Your task to perform on an android device: Is it going to rain this weekend? Image 0: 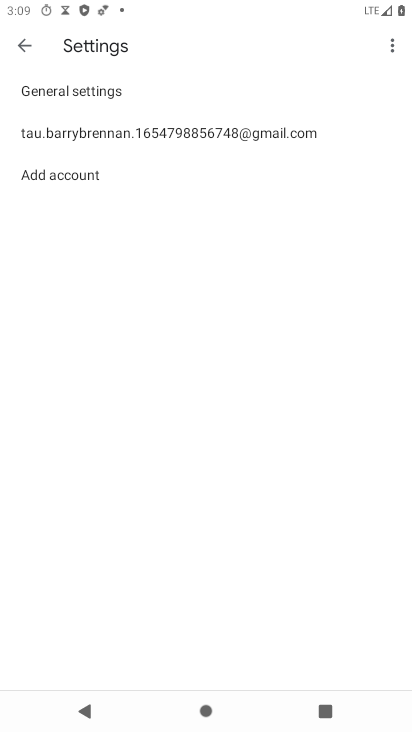
Step 0: press home button
Your task to perform on an android device: Is it going to rain this weekend? Image 1: 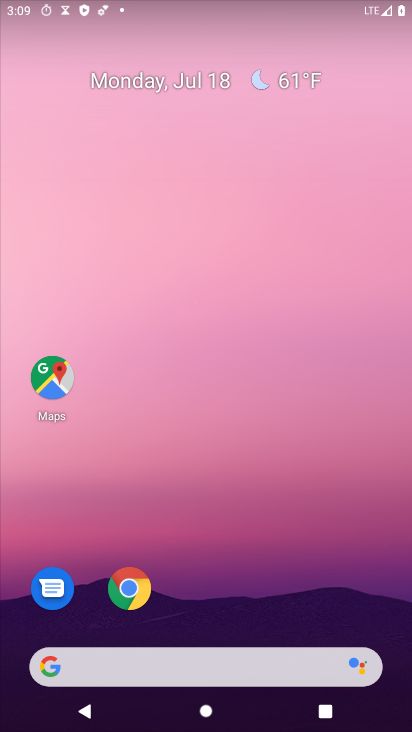
Step 1: drag from (238, 567) to (241, 0)
Your task to perform on an android device: Is it going to rain this weekend? Image 2: 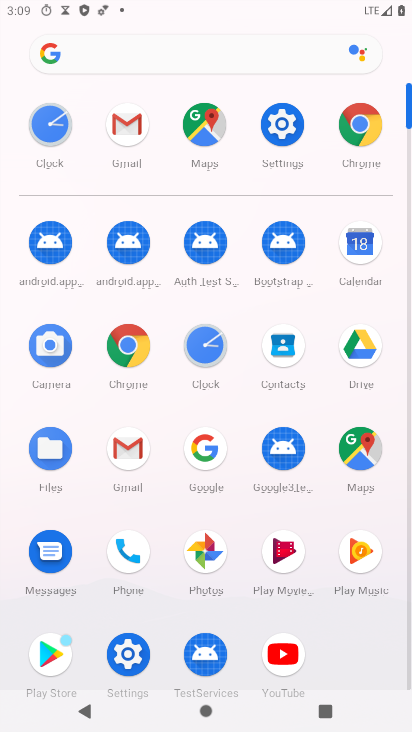
Step 2: click (209, 462)
Your task to perform on an android device: Is it going to rain this weekend? Image 3: 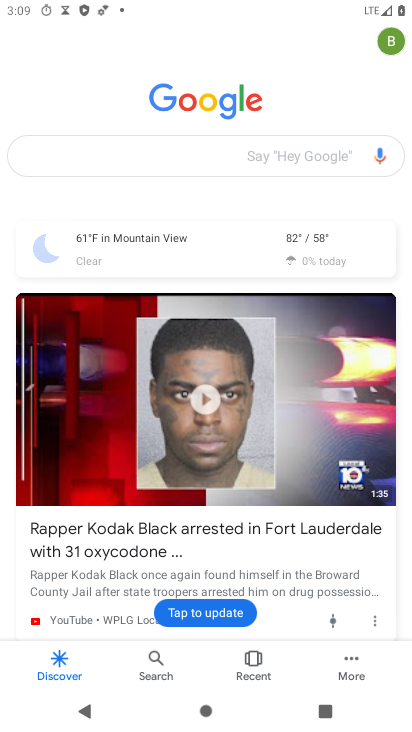
Step 3: click (145, 256)
Your task to perform on an android device: Is it going to rain this weekend? Image 4: 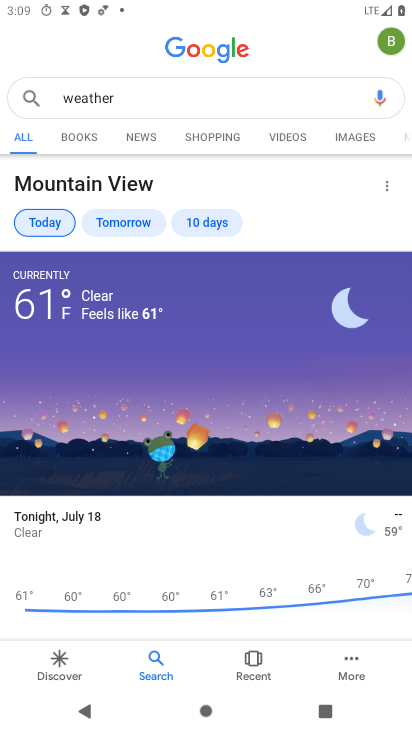
Step 4: click (207, 213)
Your task to perform on an android device: Is it going to rain this weekend? Image 5: 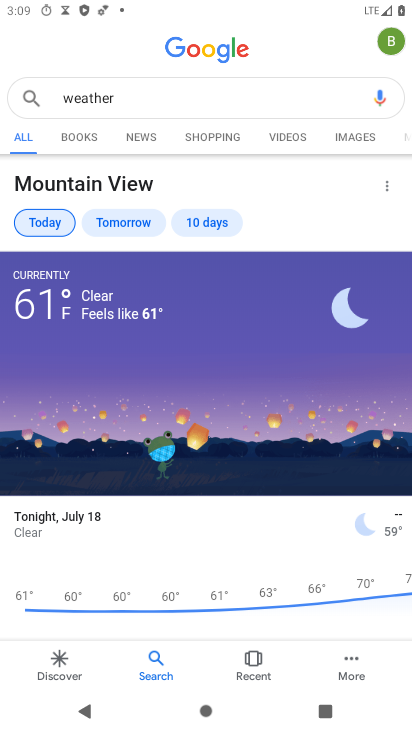
Step 5: click (207, 218)
Your task to perform on an android device: Is it going to rain this weekend? Image 6: 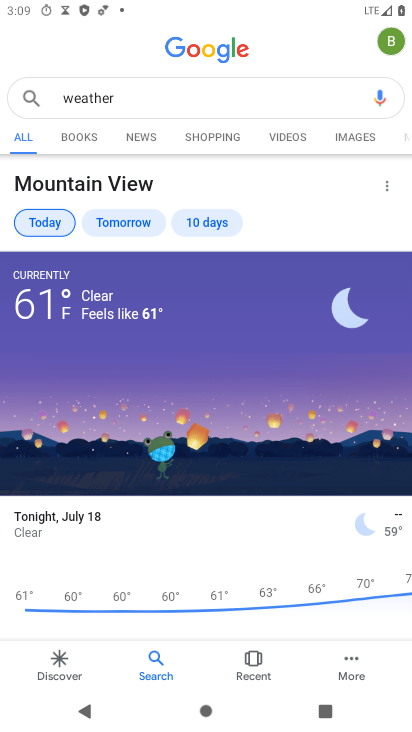
Step 6: click (207, 218)
Your task to perform on an android device: Is it going to rain this weekend? Image 7: 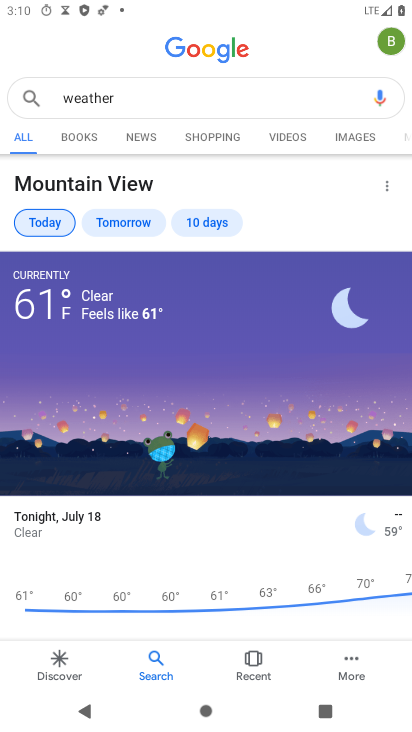
Step 7: click (207, 218)
Your task to perform on an android device: Is it going to rain this weekend? Image 8: 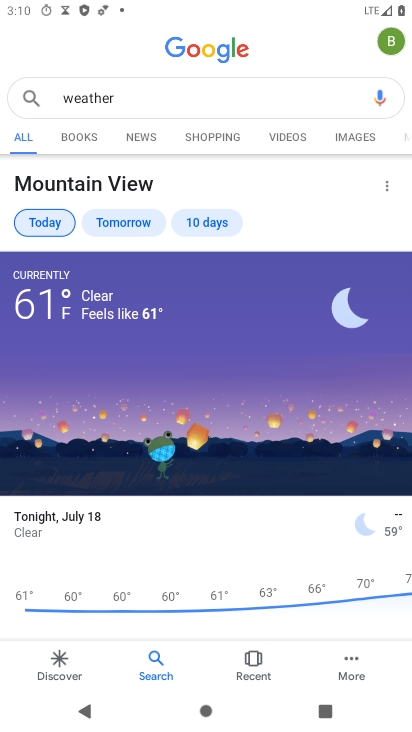
Step 8: click (213, 223)
Your task to perform on an android device: Is it going to rain this weekend? Image 9: 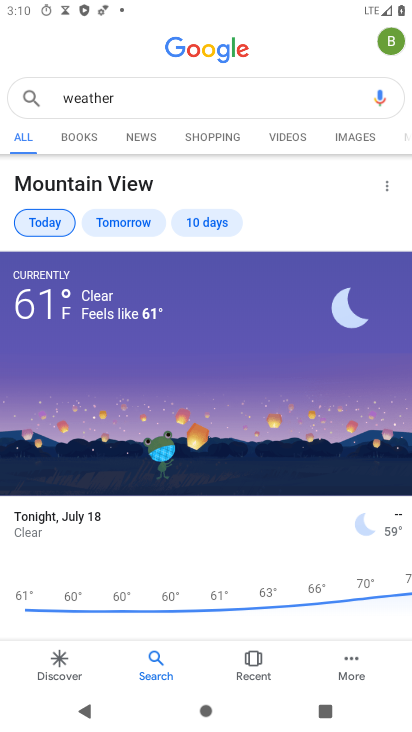
Step 9: task complete